Your task to perform on an android device: Play the last video I watched on Youtube Image 0: 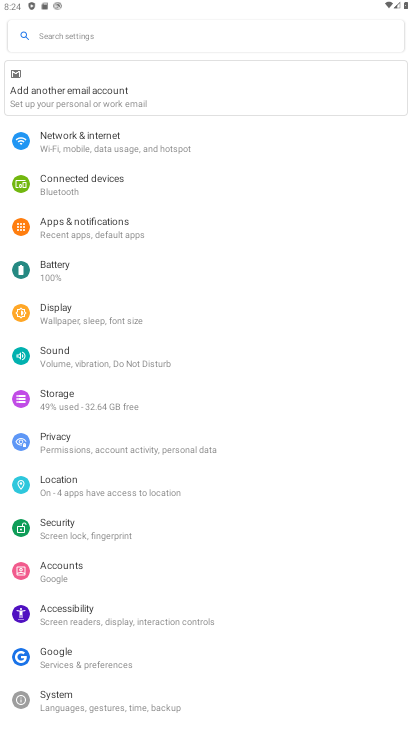
Step 0: press home button
Your task to perform on an android device: Play the last video I watched on Youtube Image 1: 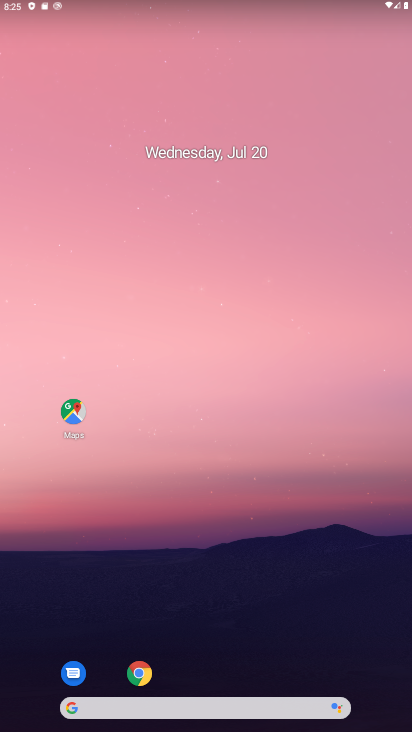
Step 1: drag from (235, 728) to (232, 265)
Your task to perform on an android device: Play the last video I watched on Youtube Image 2: 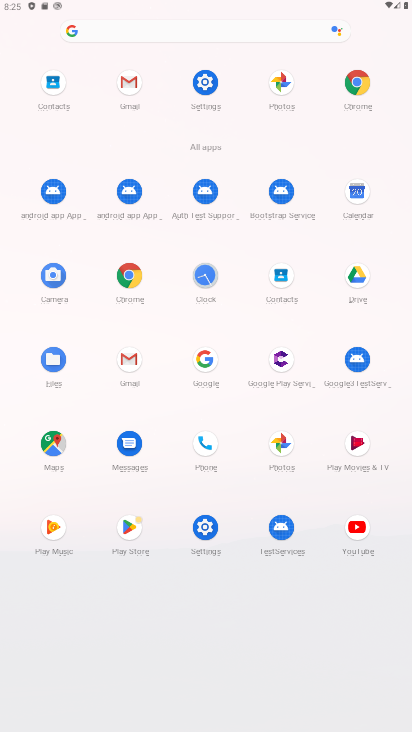
Step 2: click (366, 521)
Your task to perform on an android device: Play the last video I watched on Youtube Image 3: 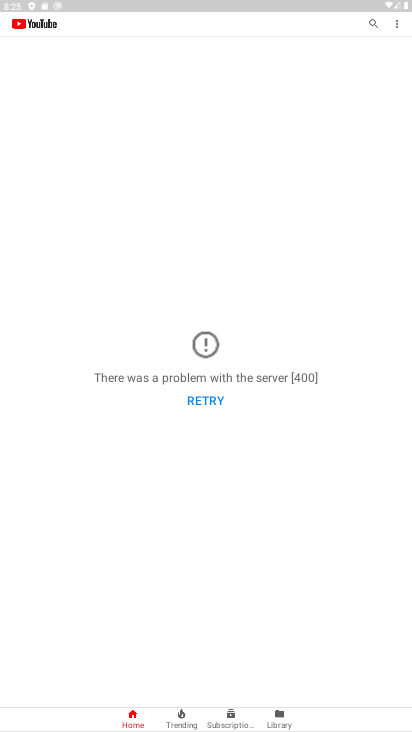
Step 3: click (279, 712)
Your task to perform on an android device: Play the last video I watched on Youtube Image 4: 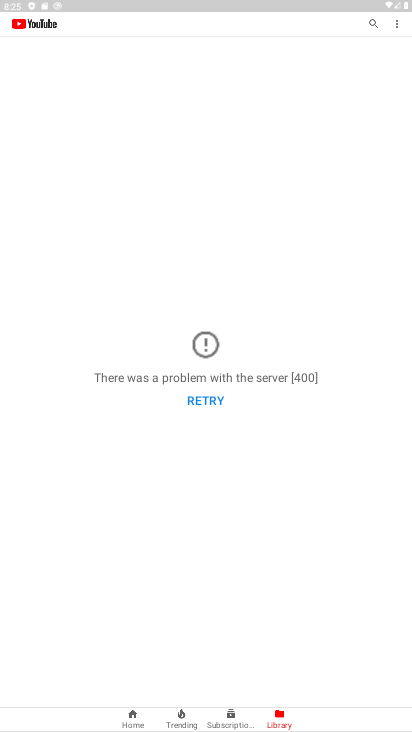
Step 4: click (205, 401)
Your task to perform on an android device: Play the last video I watched on Youtube Image 5: 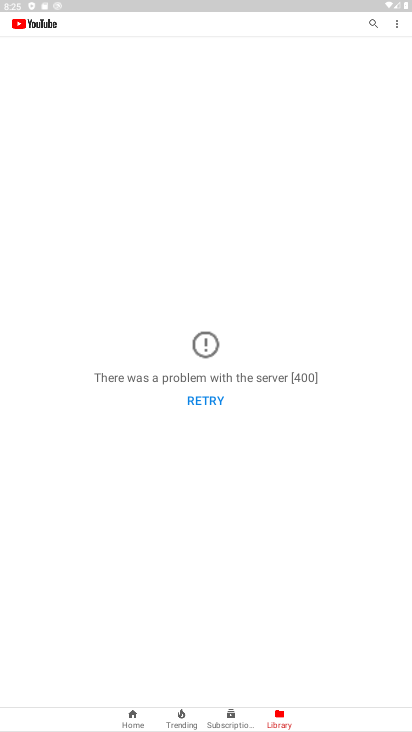
Step 5: click (205, 401)
Your task to perform on an android device: Play the last video I watched on Youtube Image 6: 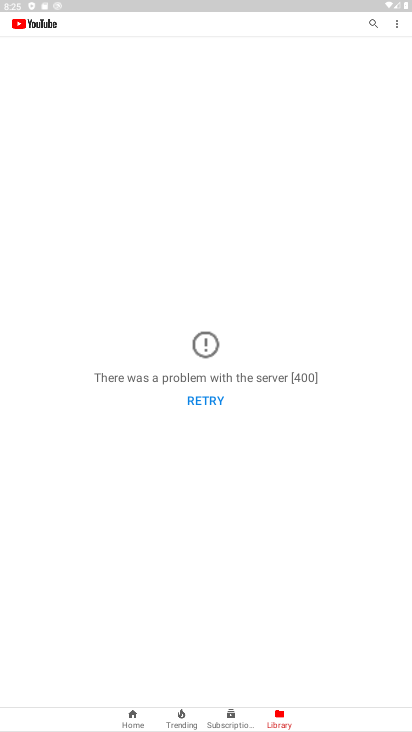
Step 6: task complete